Your task to perform on an android device: Open Yahoo.com Image 0: 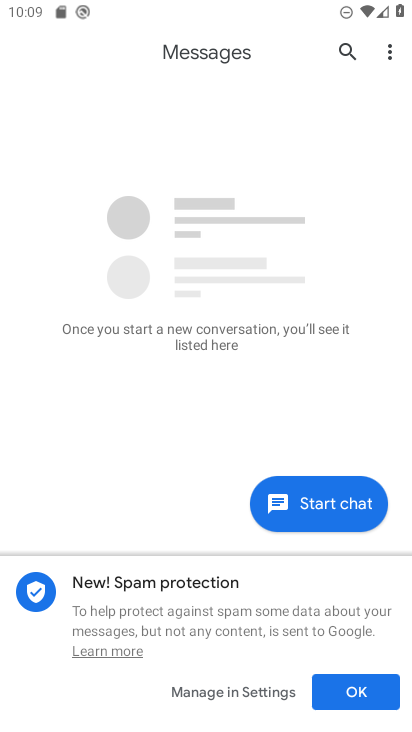
Step 0: press home button
Your task to perform on an android device: Open Yahoo.com Image 1: 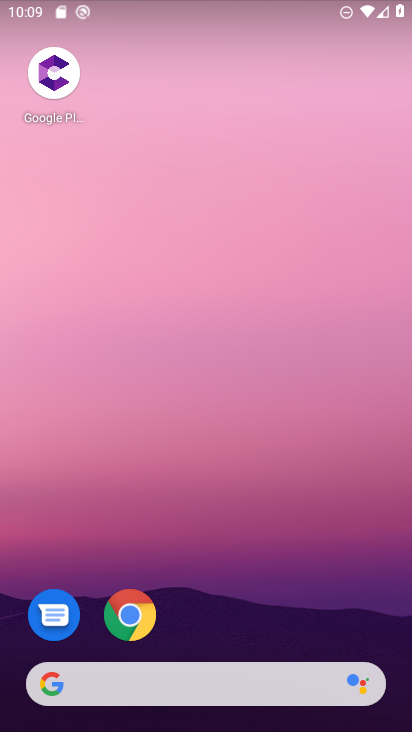
Step 1: click (127, 610)
Your task to perform on an android device: Open Yahoo.com Image 2: 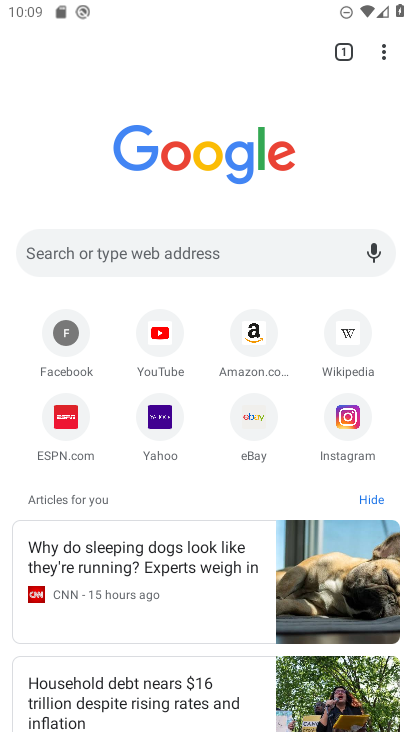
Step 2: click (109, 251)
Your task to perform on an android device: Open Yahoo.com Image 3: 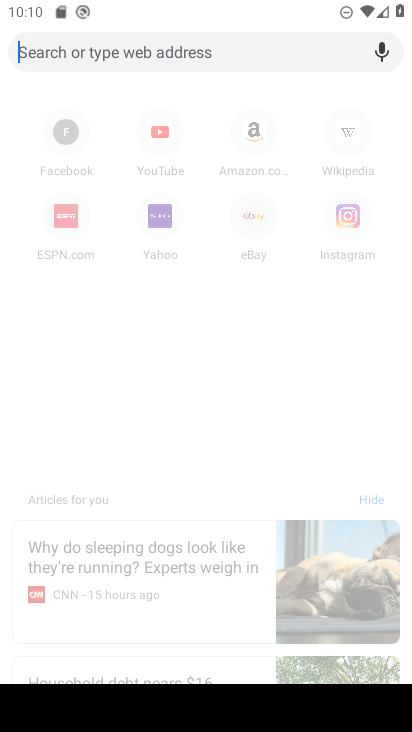
Step 3: type "yahoo.com"
Your task to perform on an android device: Open Yahoo.com Image 4: 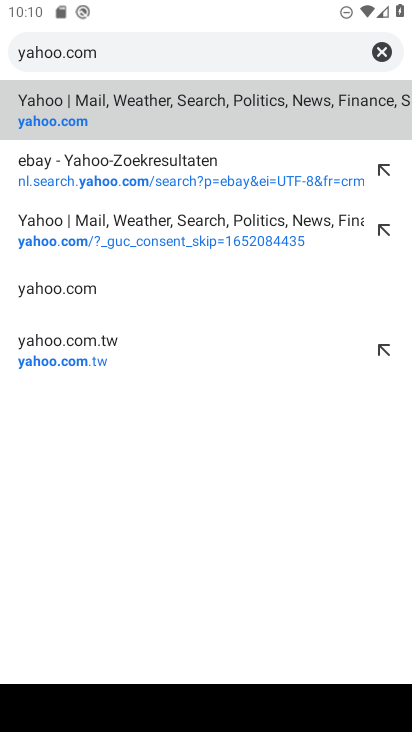
Step 4: click (16, 105)
Your task to perform on an android device: Open Yahoo.com Image 5: 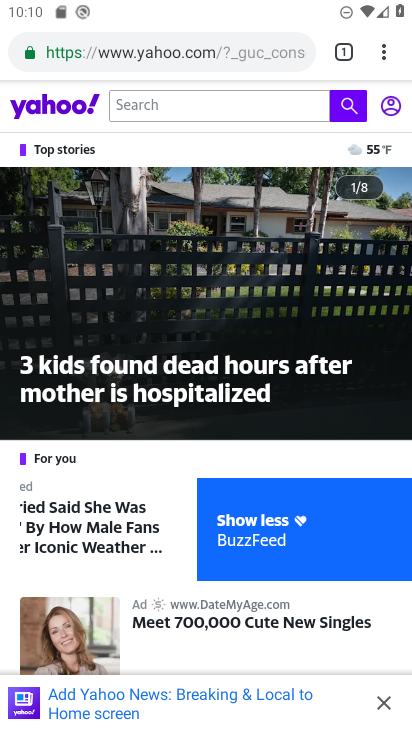
Step 5: task complete